Your task to perform on an android device: Open network settings Image 0: 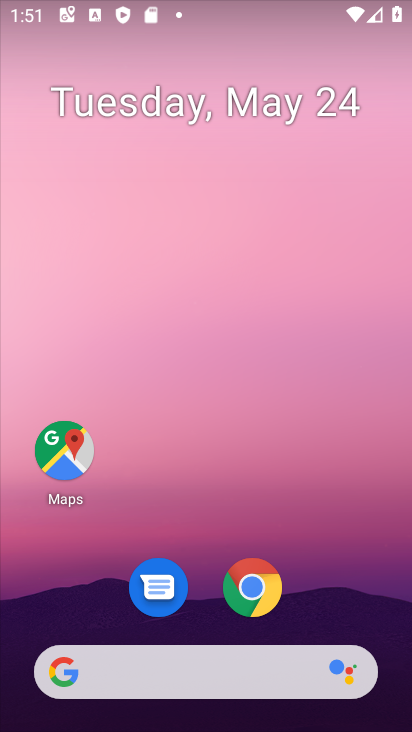
Step 0: drag from (130, 555) to (87, 11)
Your task to perform on an android device: Open network settings Image 1: 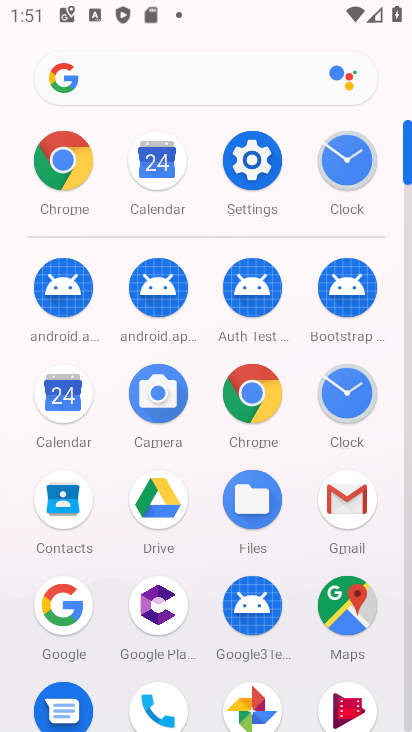
Step 1: click (259, 161)
Your task to perform on an android device: Open network settings Image 2: 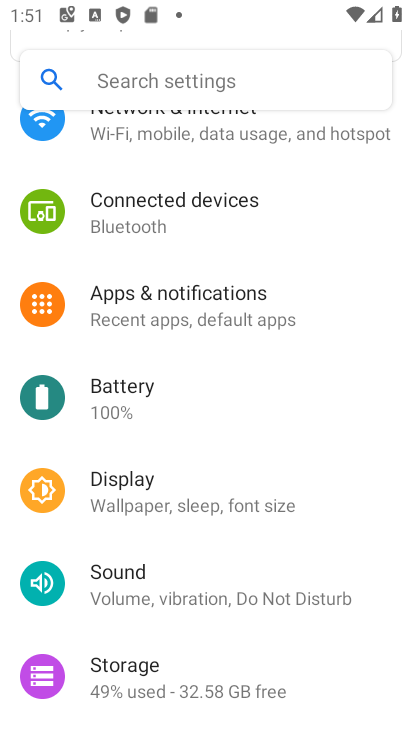
Step 2: click (258, 131)
Your task to perform on an android device: Open network settings Image 3: 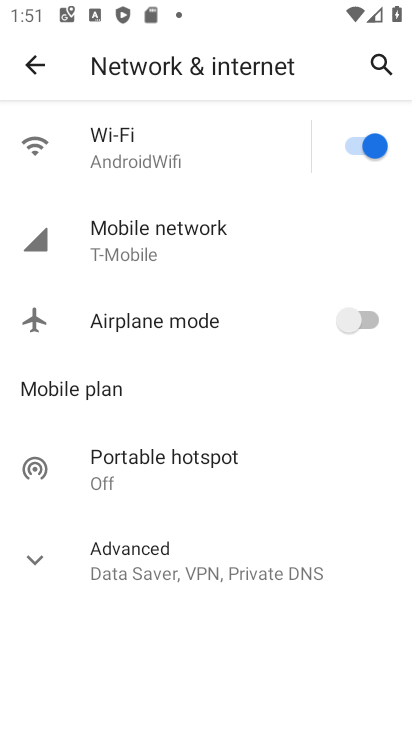
Step 3: task complete